Your task to perform on an android device: Open the stopwatch Image 0: 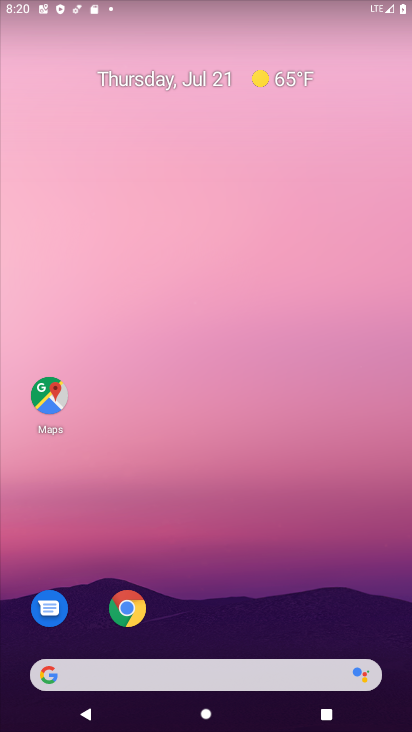
Step 0: press home button
Your task to perform on an android device: Open the stopwatch Image 1: 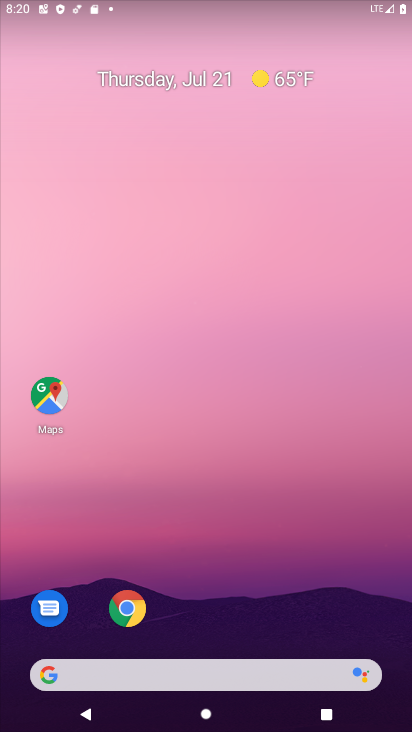
Step 1: drag from (227, 673) to (238, 126)
Your task to perform on an android device: Open the stopwatch Image 2: 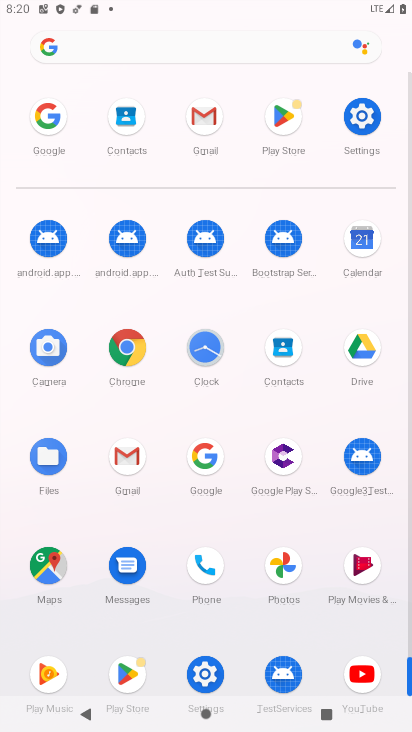
Step 2: click (207, 348)
Your task to perform on an android device: Open the stopwatch Image 3: 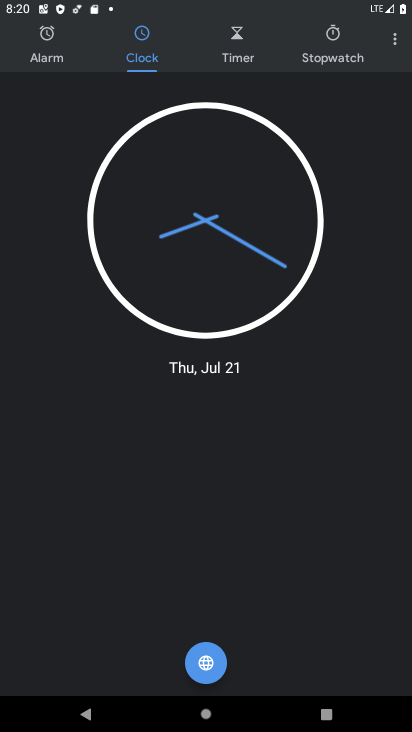
Step 3: click (337, 35)
Your task to perform on an android device: Open the stopwatch Image 4: 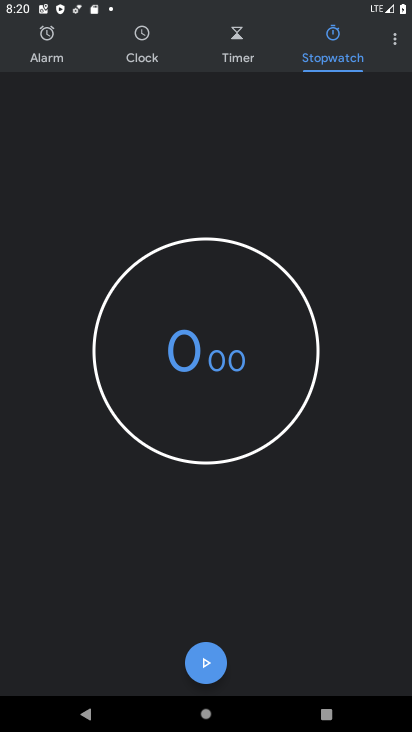
Step 4: task complete